Your task to perform on an android device: set the timer Image 0: 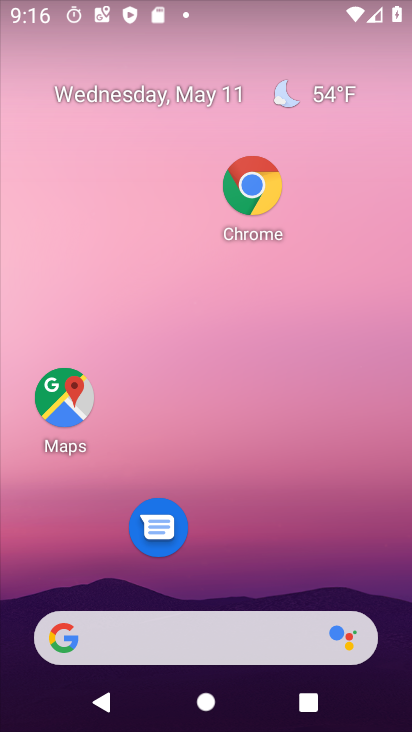
Step 0: drag from (232, 494) to (222, 38)
Your task to perform on an android device: set the timer Image 1: 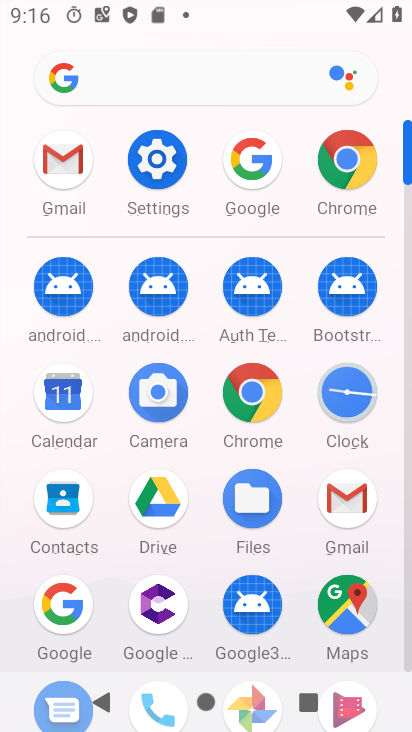
Step 1: click (350, 392)
Your task to perform on an android device: set the timer Image 2: 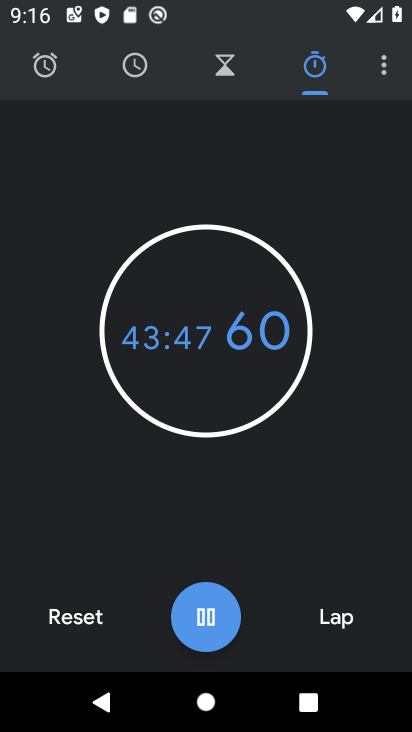
Step 2: click (224, 58)
Your task to perform on an android device: set the timer Image 3: 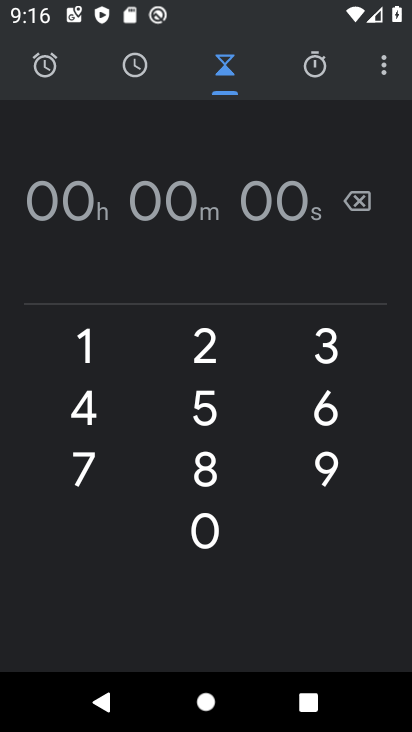
Step 3: click (217, 340)
Your task to perform on an android device: set the timer Image 4: 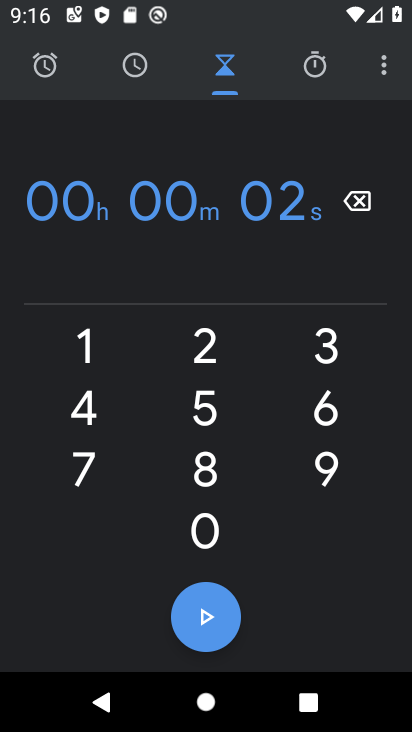
Step 4: click (217, 340)
Your task to perform on an android device: set the timer Image 5: 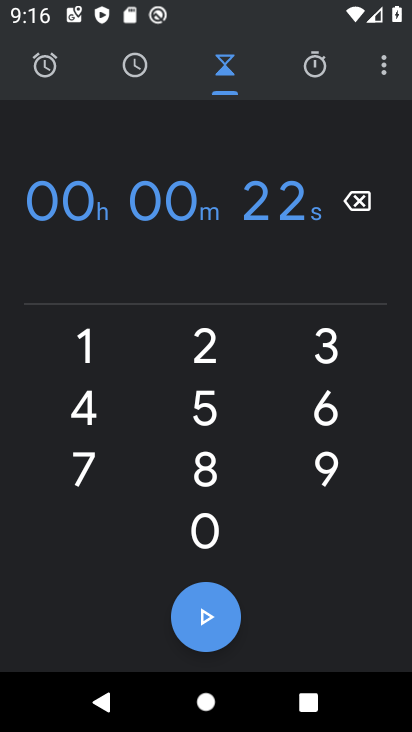
Step 5: task complete